Your task to perform on an android device: Open Youtube and go to "Your channel" Image 0: 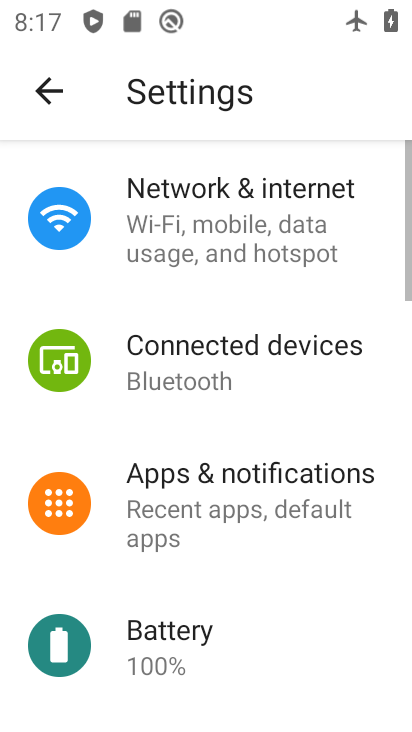
Step 0: press home button
Your task to perform on an android device: Open Youtube and go to "Your channel" Image 1: 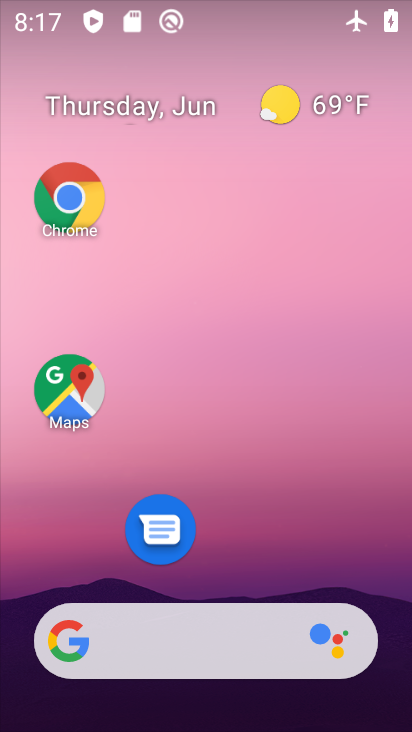
Step 1: drag from (229, 591) to (256, 89)
Your task to perform on an android device: Open Youtube and go to "Your channel" Image 2: 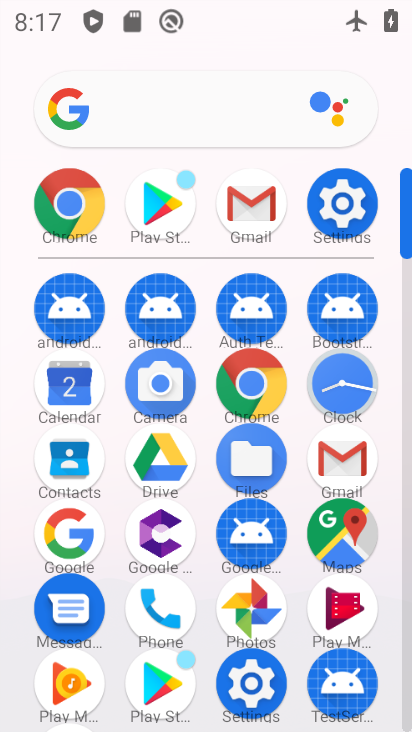
Step 2: drag from (203, 578) to (151, 19)
Your task to perform on an android device: Open Youtube and go to "Your channel" Image 3: 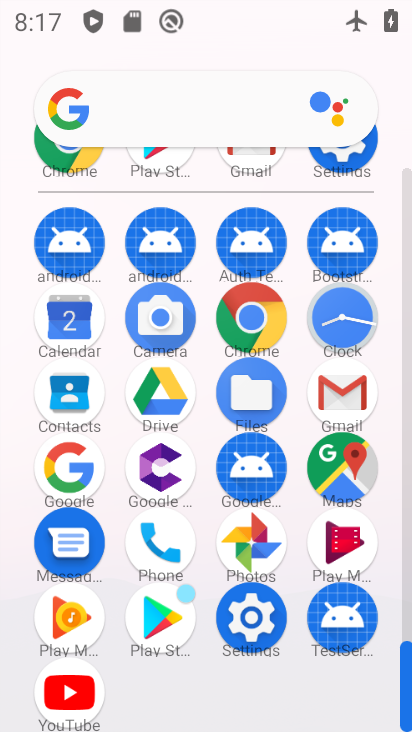
Step 3: click (75, 697)
Your task to perform on an android device: Open Youtube and go to "Your channel" Image 4: 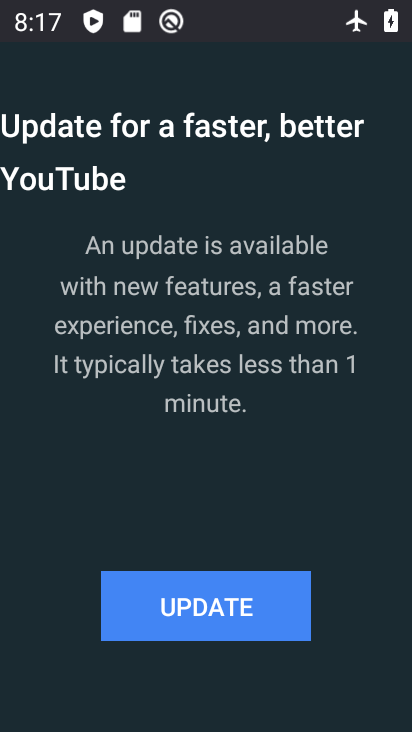
Step 4: click (230, 608)
Your task to perform on an android device: Open Youtube and go to "Your channel" Image 5: 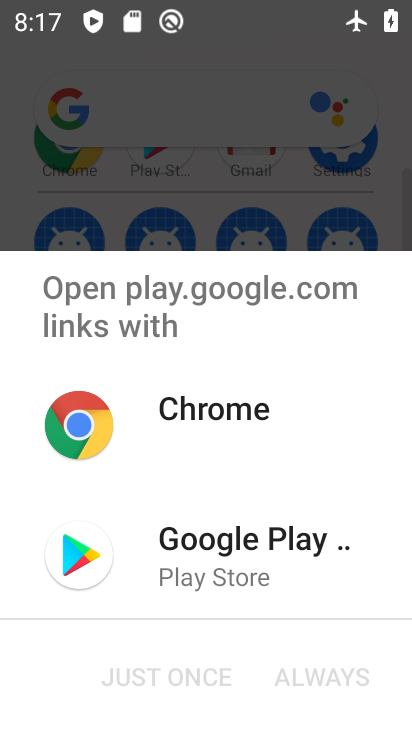
Step 5: click (190, 541)
Your task to perform on an android device: Open Youtube and go to "Your channel" Image 6: 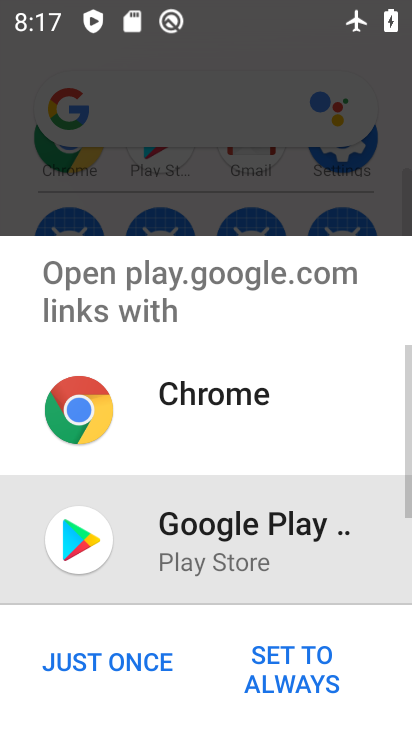
Step 6: click (114, 656)
Your task to perform on an android device: Open Youtube and go to "Your channel" Image 7: 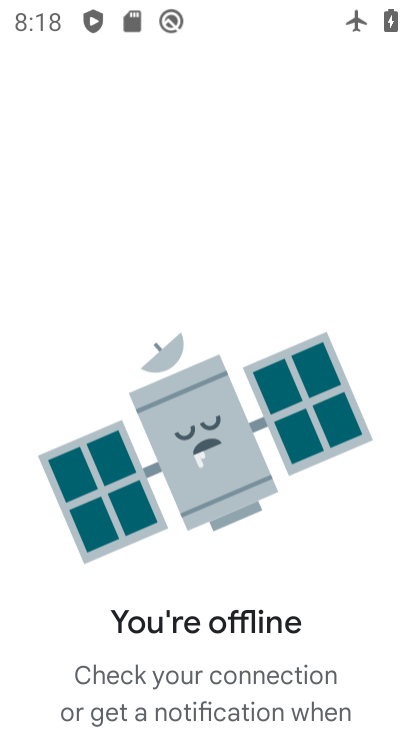
Step 7: task complete